Your task to perform on an android device: Open the phone app and click the voicemail tab. Image 0: 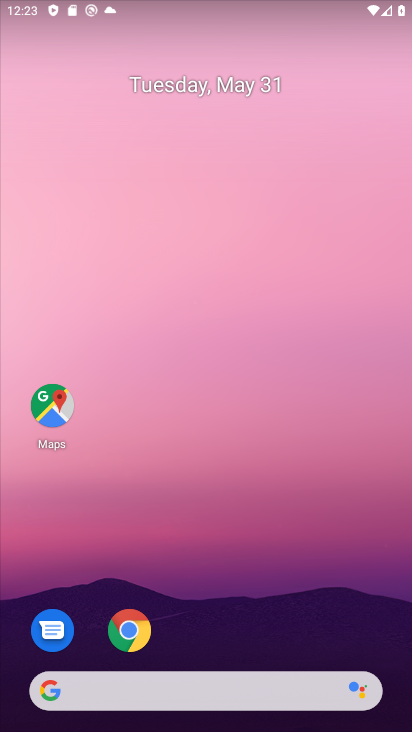
Step 0: drag from (226, 580) to (354, 208)
Your task to perform on an android device: Open the phone app and click the voicemail tab. Image 1: 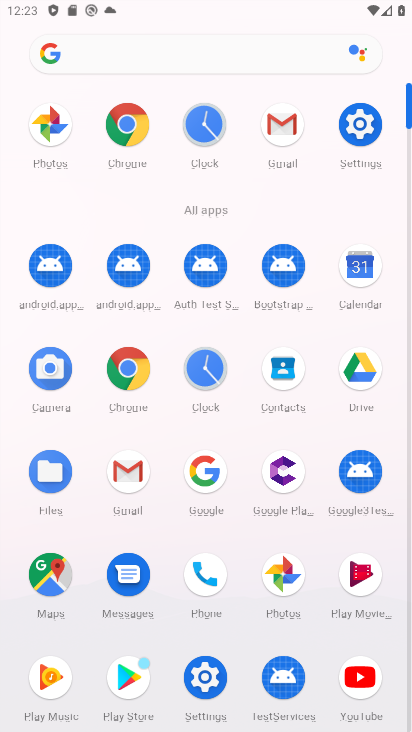
Step 1: click (212, 582)
Your task to perform on an android device: Open the phone app and click the voicemail tab. Image 2: 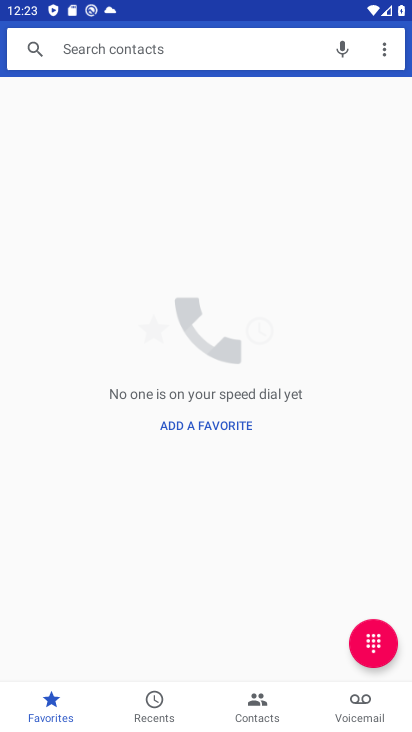
Step 2: click (366, 707)
Your task to perform on an android device: Open the phone app and click the voicemail tab. Image 3: 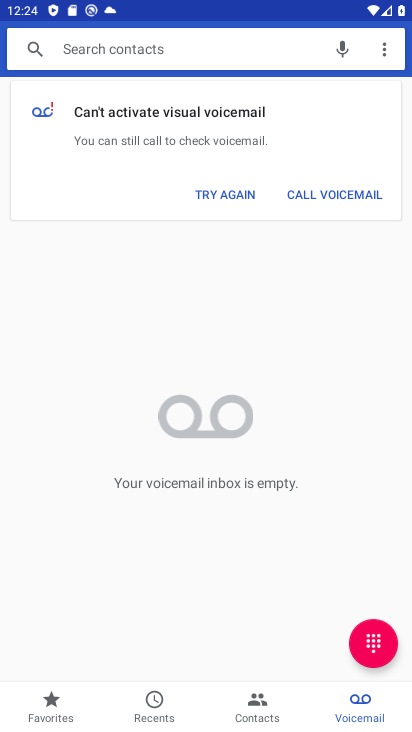
Step 3: task complete